Your task to perform on an android device: Go to privacy settings Image 0: 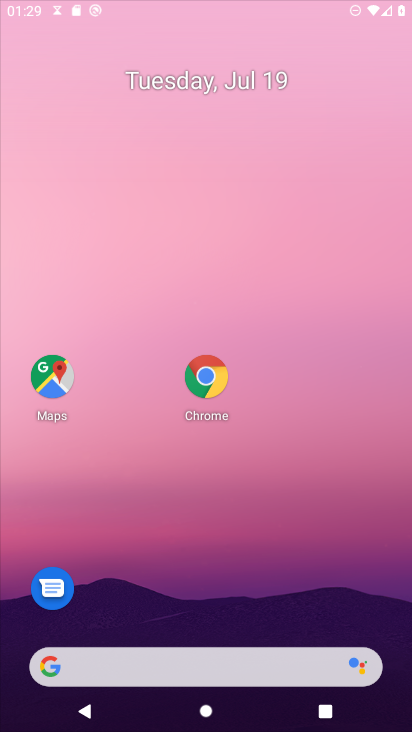
Step 0: press home button
Your task to perform on an android device: Go to privacy settings Image 1: 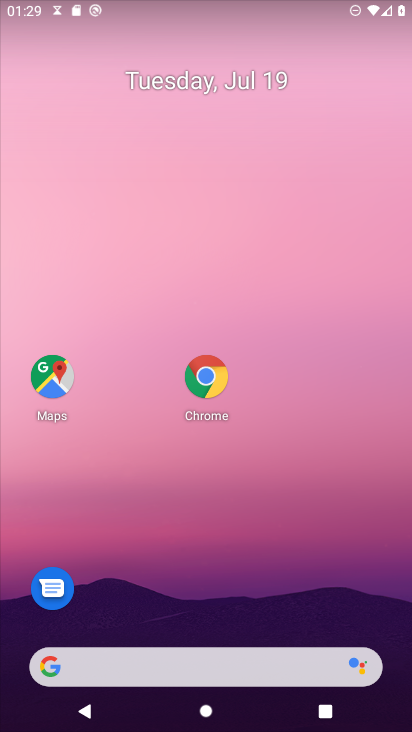
Step 1: press home button
Your task to perform on an android device: Go to privacy settings Image 2: 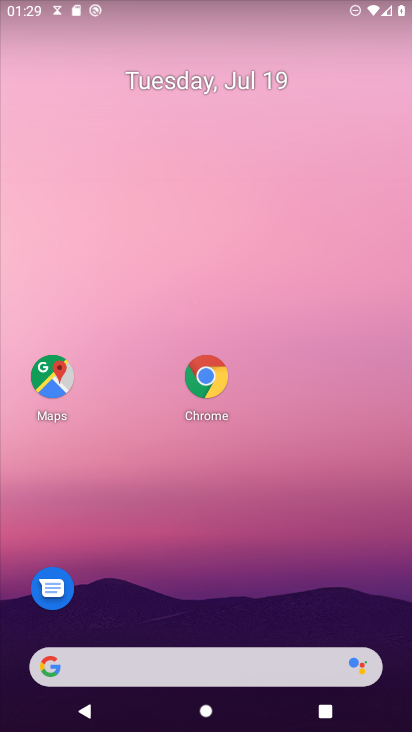
Step 2: drag from (232, 590) to (243, 74)
Your task to perform on an android device: Go to privacy settings Image 3: 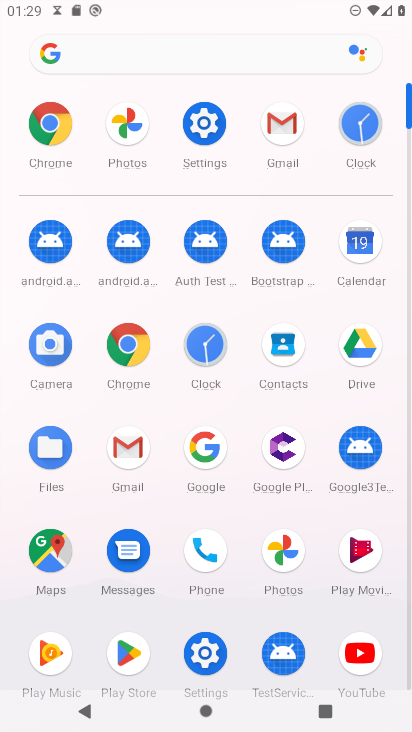
Step 3: click (201, 129)
Your task to perform on an android device: Go to privacy settings Image 4: 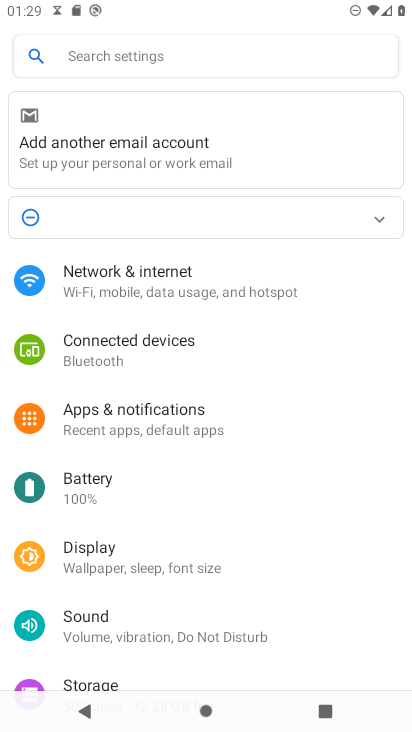
Step 4: drag from (297, 582) to (368, 104)
Your task to perform on an android device: Go to privacy settings Image 5: 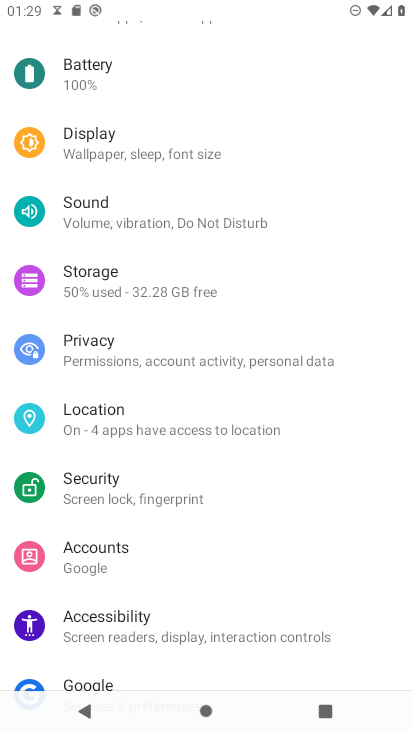
Step 5: click (98, 350)
Your task to perform on an android device: Go to privacy settings Image 6: 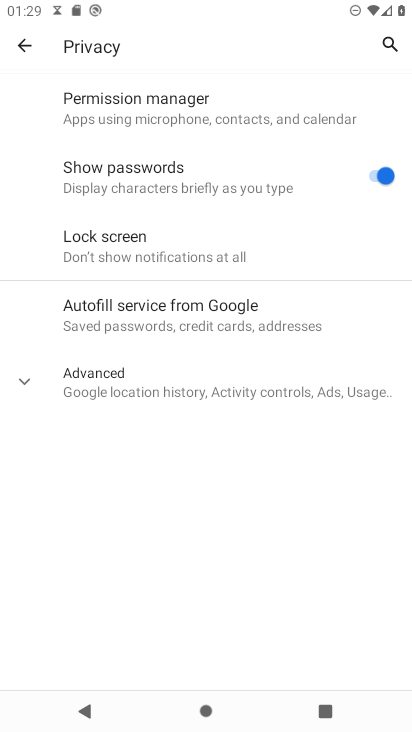
Step 6: task complete